Your task to perform on an android device: turn off javascript in the chrome app Image 0: 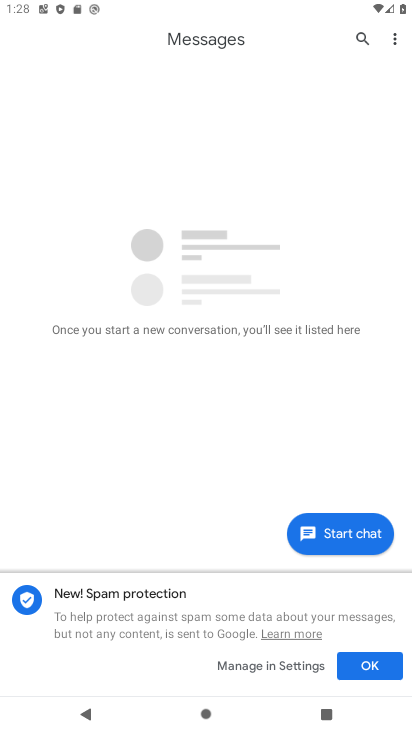
Step 0: drag from (359, 552) to (362, 283)
Your task to perform on an android device: turn off javascript in the chrome app Image 1: 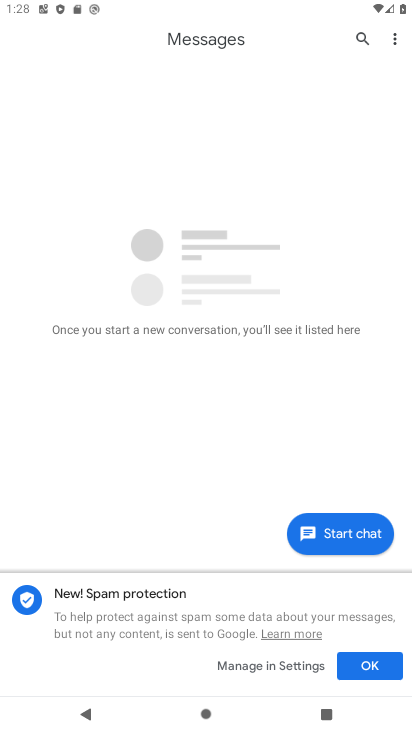
Step 1: press home button
Your task to perform on an android device: turn off javascript in the chrome app Image 2: 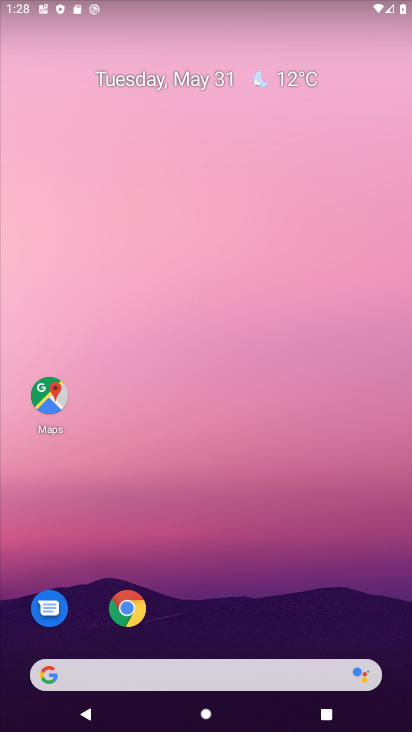
Step 2: drag from (321, 595) to (283, 173)
Your task to perform on an android device: turn off javascript in the chrome app Image 3: 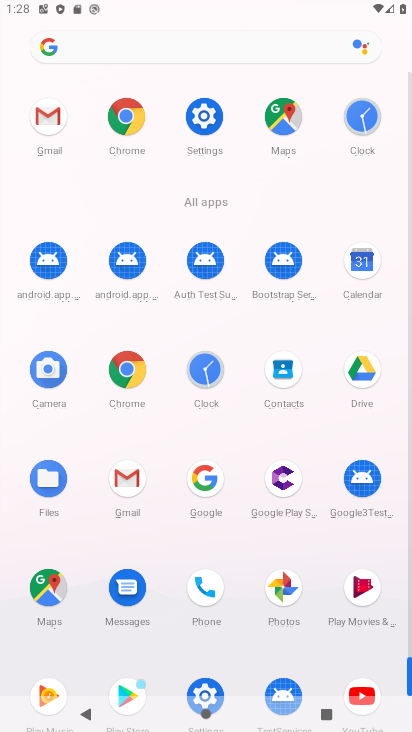
Step 3: click (127, 361)
Your task to perform on an android device: turn off javascript in the chrome app Image 4: 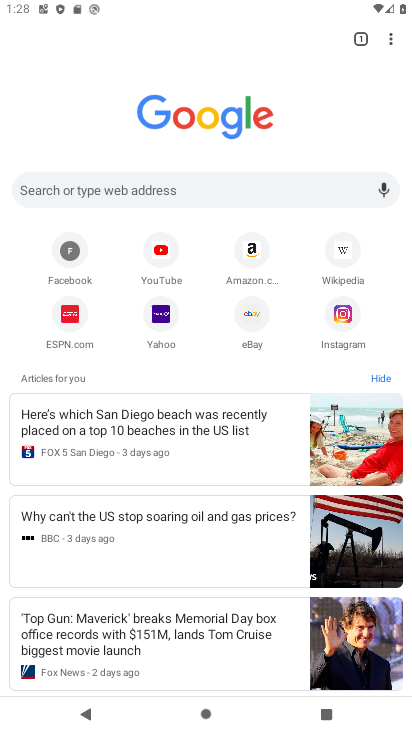
Step 4: click (394, 43)
Your task to perform on an android device: turn off javascript in the chrome app Image 5: 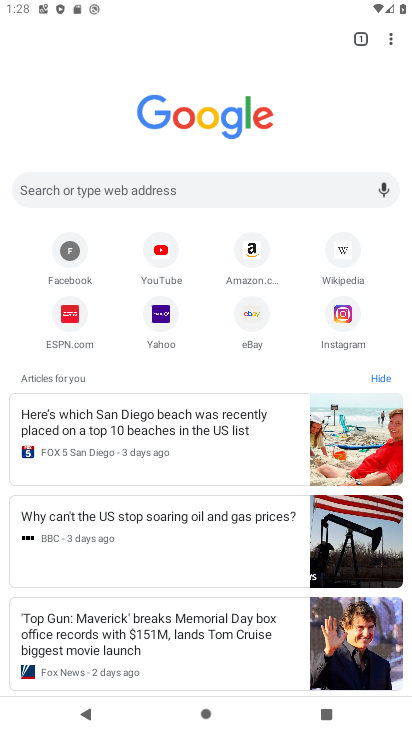
Step 5: drag from (388, 36) to (265, 328)
Your task to perform on an android device: turn off javascript in the chrome app Image 6: 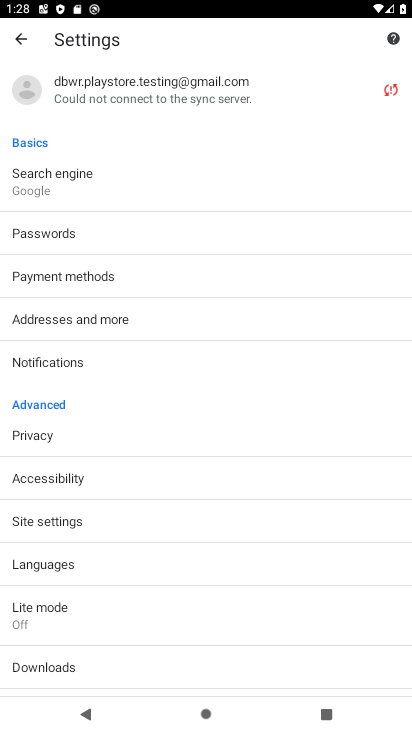
Step 6: drag from (130, 600) to (149, 315)
Your task to perform on an android device: turn off javascript in the chrome app Image 7: 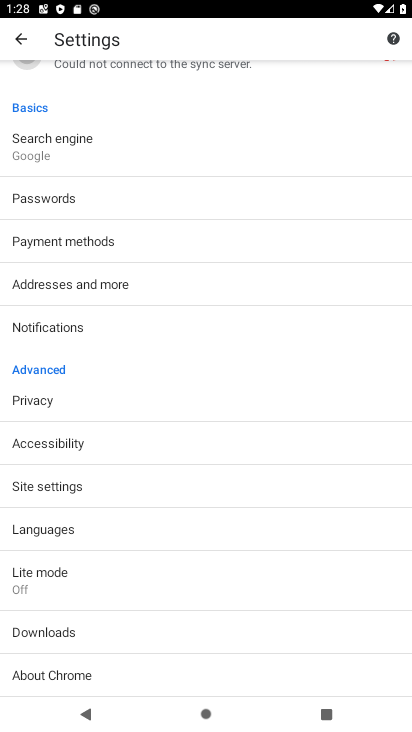
Step 7: click (106, 489)
Your task to perform on an android device: turn off javascript in the chrome app Image 8: 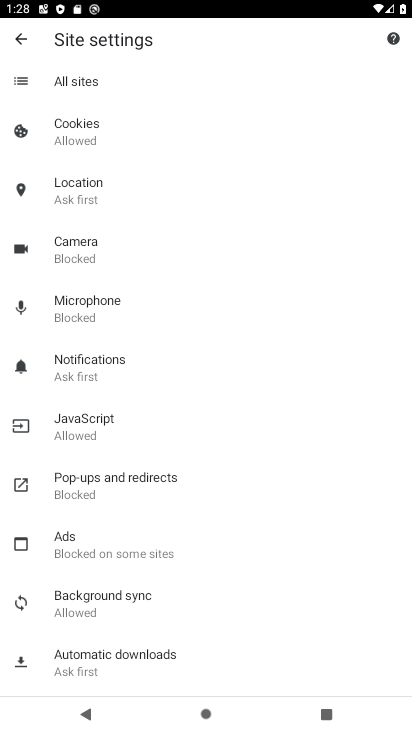
Step 8: click (105, 420)
Your task to perform on an android device: turn off javascript in the chrome app Image 9: 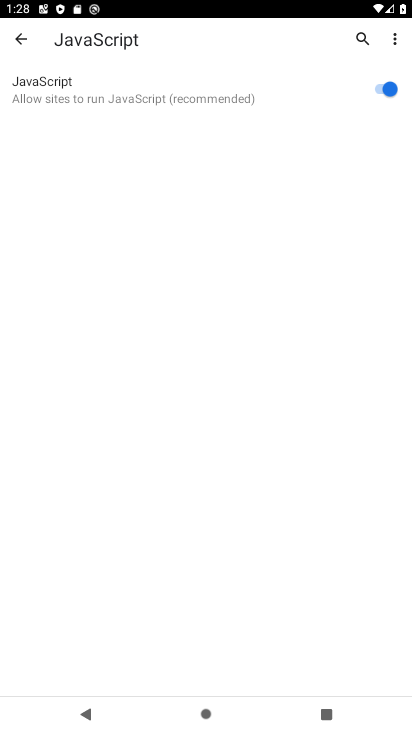
Step 9: click (379, 88)
Your task to perform on an android device: turn off javascript in the chrome app Image 10: 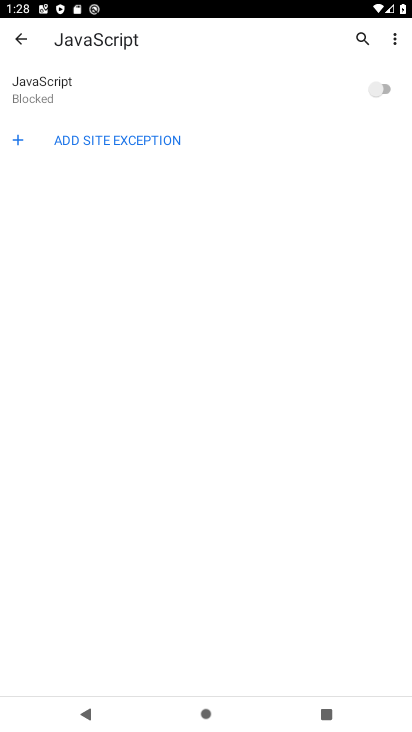
Step 10: task complete